Your task to perform on an android device: Show me popular videos on Youtube Image 0: 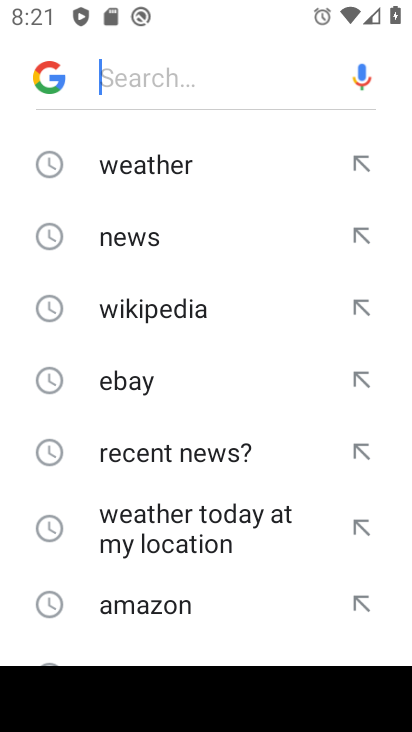
Step 0: press home button
Your task to perform on an android device: Show me popular videos on Youtube Image 1: 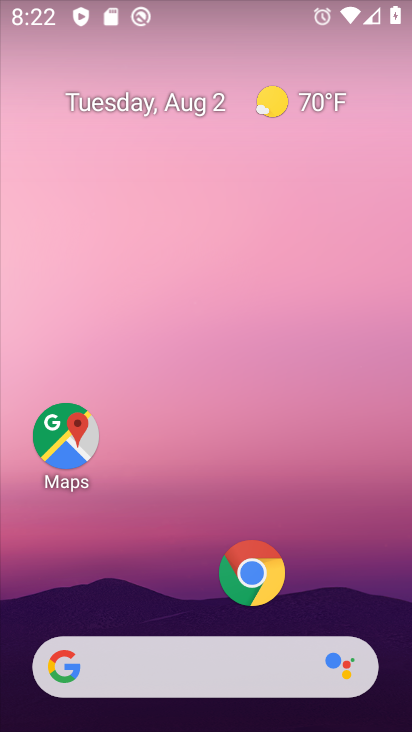
Step 1: drag from (183, 586) to (152, 103)
Your task to perform on an android device: Show me popular videos on Youtube Image 2: 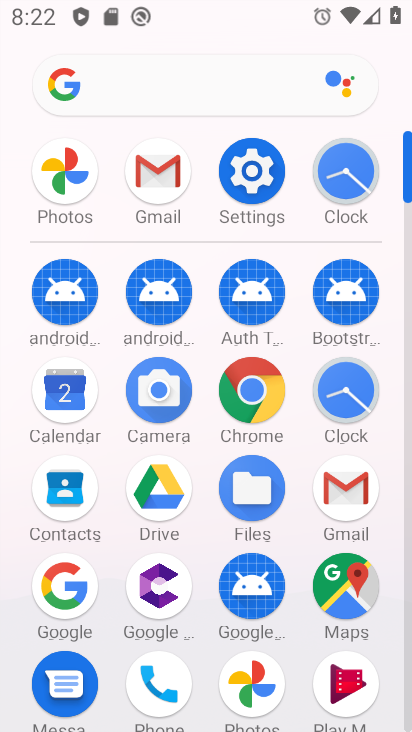
Step 2: drag from (299, 541) to (274, 127)
Your task to perform on an android device: Show me popular videos on Youtube Image 3: 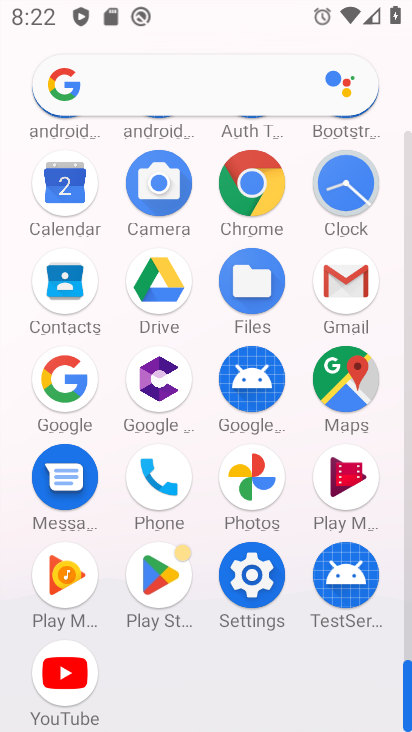
Step 3: click (63, 667)
Your task to perform on an android device: Show me popular videos on Youtube Image 4: 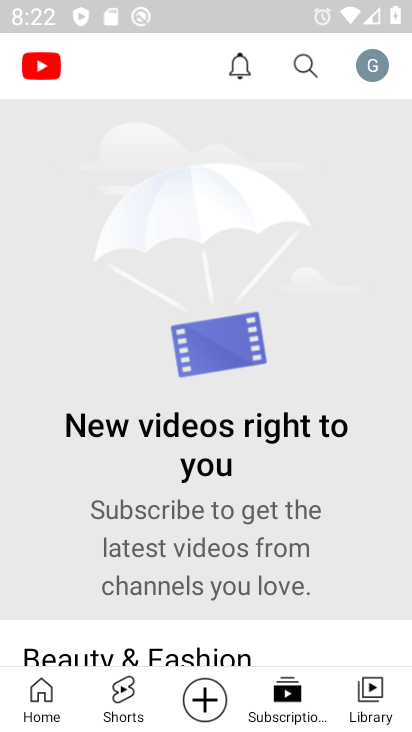
Step 4: drag from (206, 506) to (182, 169)
Your task to perform on an android device: Show me popular videos on Youtube Image 5: 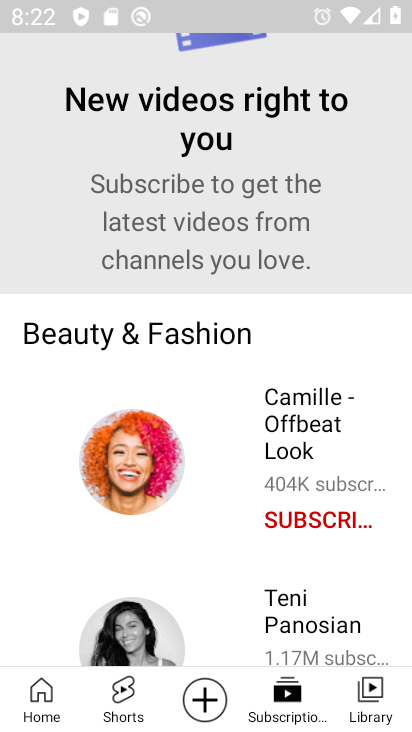
Step 5: click (40, 694)
Your task to perform on an android device: Show me popular videos on Youtube Image 6: 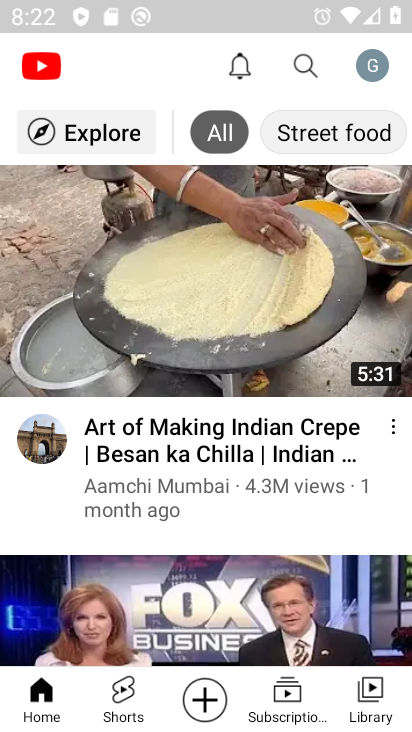
Step 6: click (70, 128)
Your task to perform on an android device: Show me popular videos on Youtube Image 7: 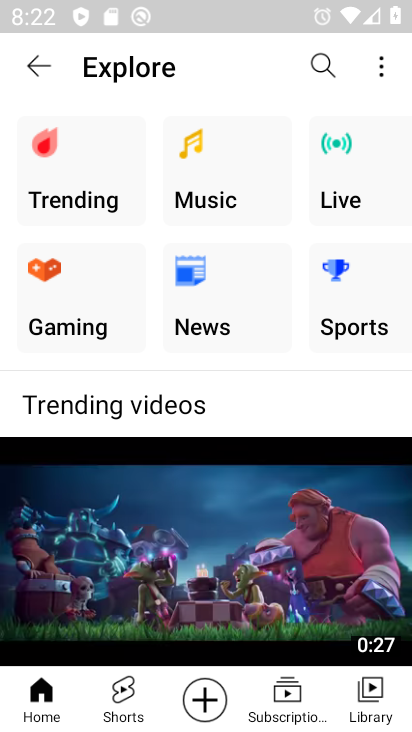
Step 7: click (82, 163)
Your task to perform on an android device: Show me popular videos on Youtube Image 8: 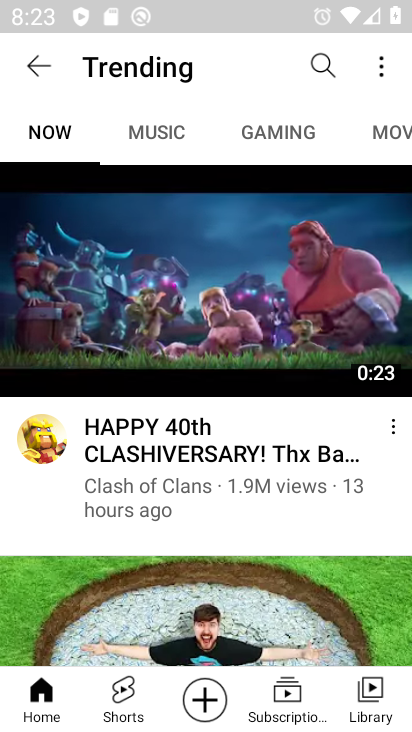
Step 8: task complete